Your task to perform on an android device: Open location settings Image 0: 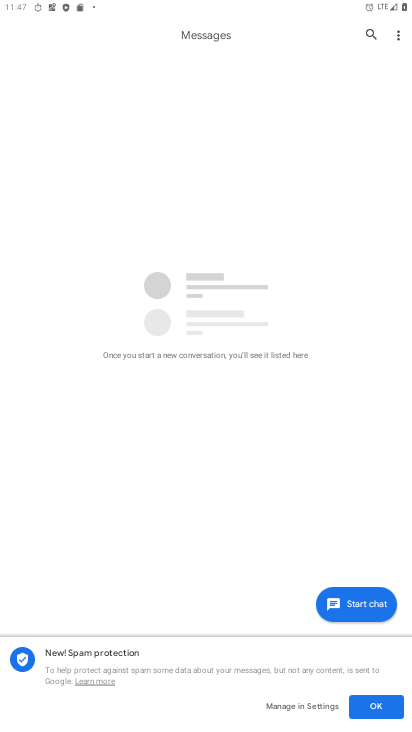
Step 0: press home button
Your task to perform on an android device: Open location settings Image 1: 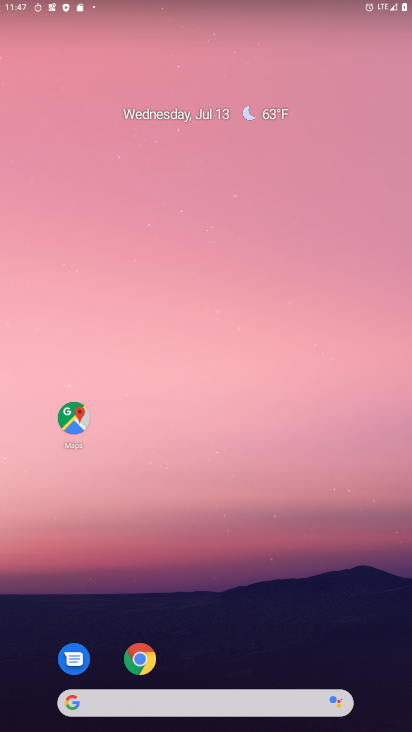
Step 1: drag from (283, 486) to (265, 166)
Your task to perform on an android device: Open location settings Image 2: 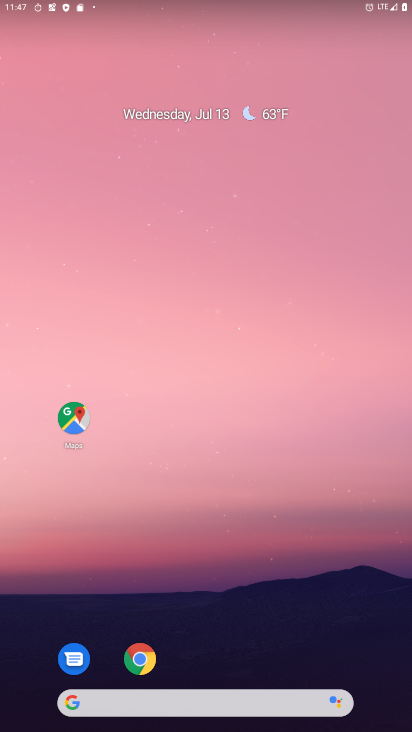
Step 2: drag from (283, 408) to (246, 160)
Your task to perform on an android device: Open location settings Image 3: 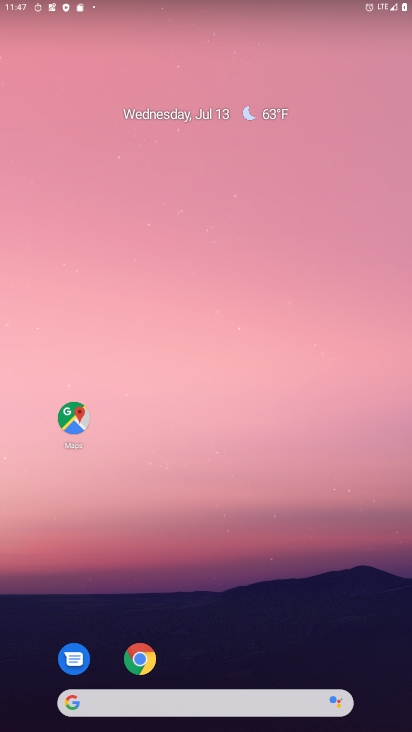
Step 3: drag from (289, 590) to (256, 124)
Your task to perform on an android device: Open location settings Image 4: 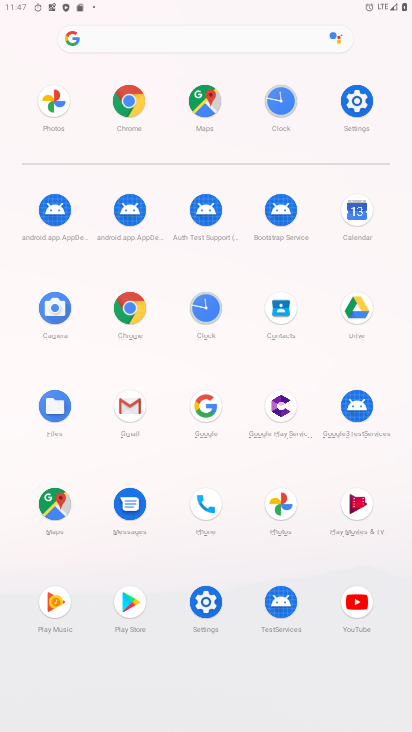
Step 4: click (358, 113)
Your task to perform on an android device: Open location settings Image 5: 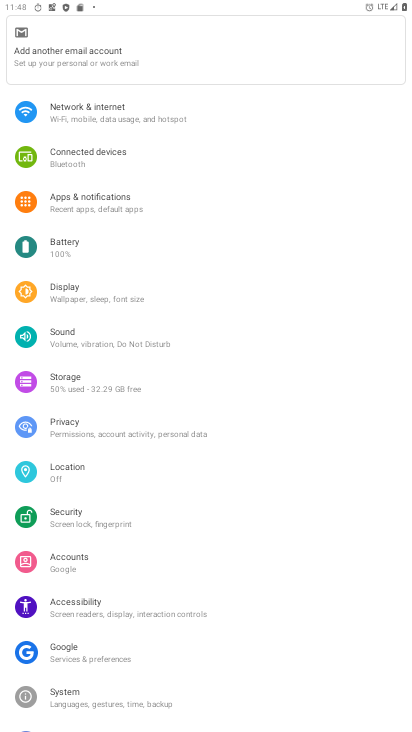
Step 5: click (70, 471)
Your task to perform on an android device: Open location settings Image 6: 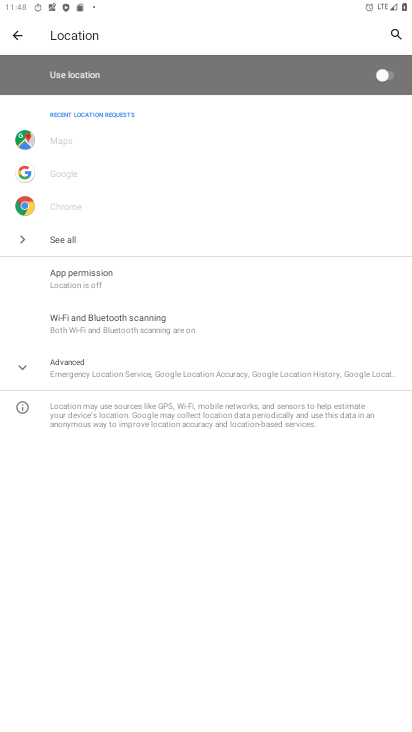
Step 6: click (379, 67)
Your task to perform on an android device: Open location settings Image 7: 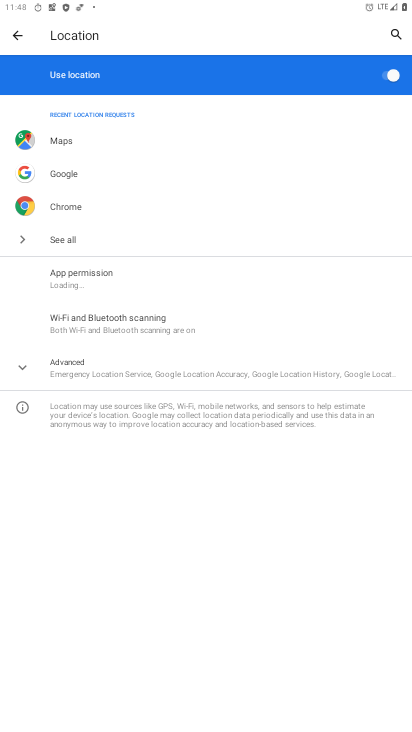
Step 7: task complete